Your task to perform on an android device: What's the weather going to be tomorrow? Image 0: 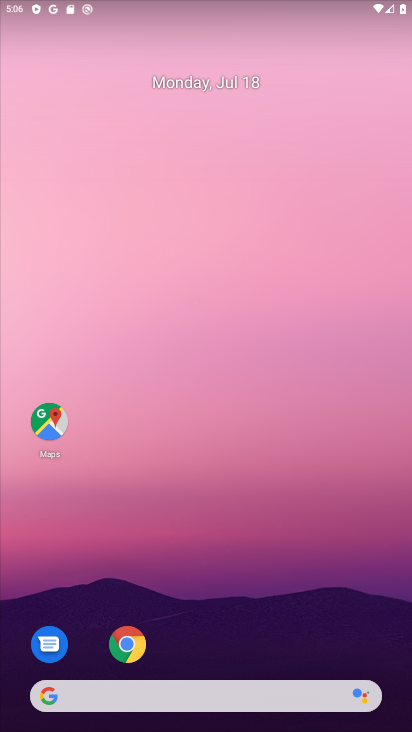
Step 0: press home button
Your task to perform on an android device: What's the weather going to be tomorrow? Image 1: 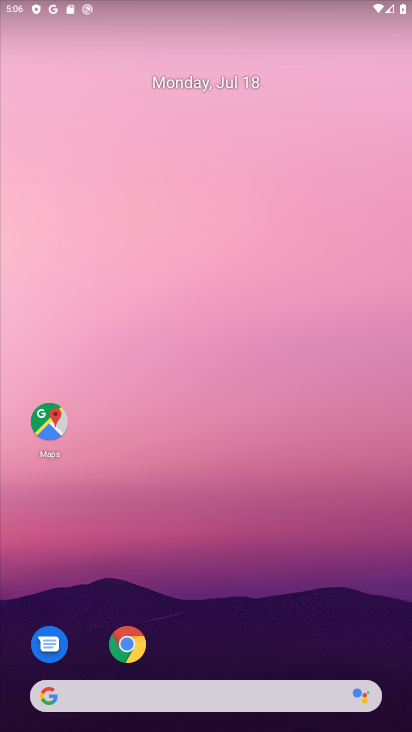
Step 1: click (44, 695)
Your task to perform on an android device: What's the weather going to be tomorrow? Image 2: 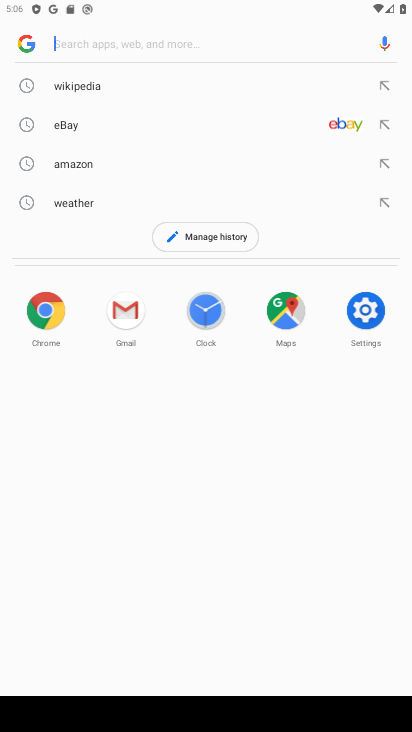
Step 2: type "weather going to be tomorrow"
Your task to perform on an android device: What's the weather going to be tomorrow? Image 3: 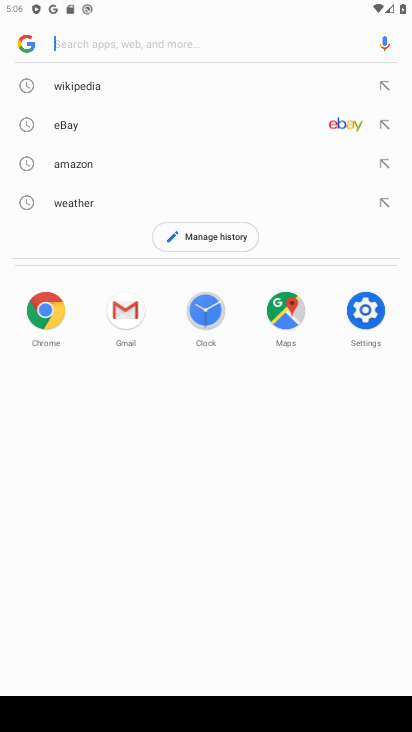
Step 3: click (122, 42)
Your task to perform on an android device: What's the weather going to be tomorrow? Image 4: 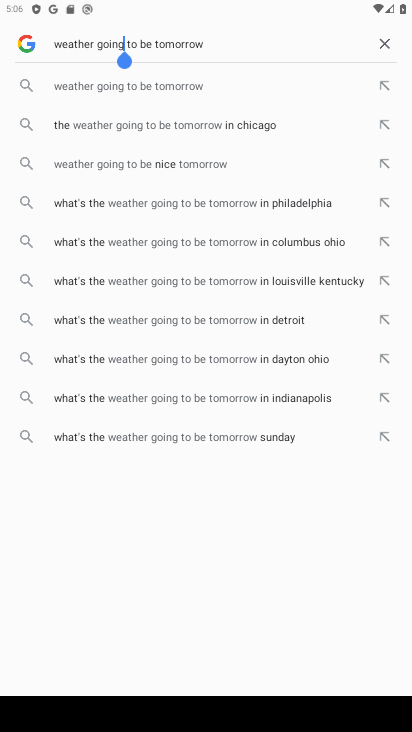
Step 4: press enter
Your task to perform on an android device: What's the weather going to be tomorrow? Image 5: 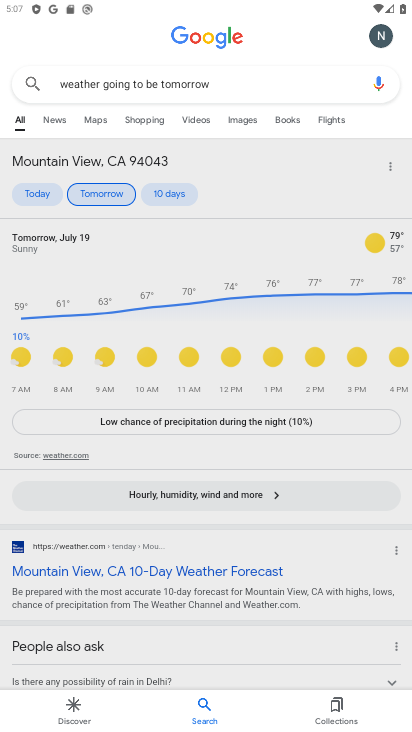
Step 5: task complete